Your task to perform on an android device: find photos in the google photos app Image 0: 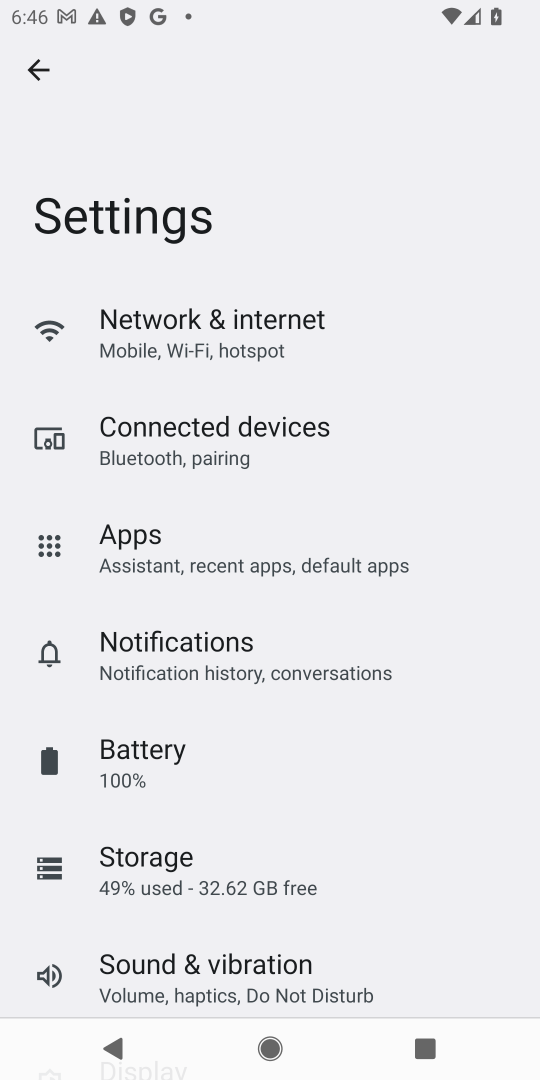
Step 0: press home button
Your task to perform on an android device: find photos in the google photos app Image 1: 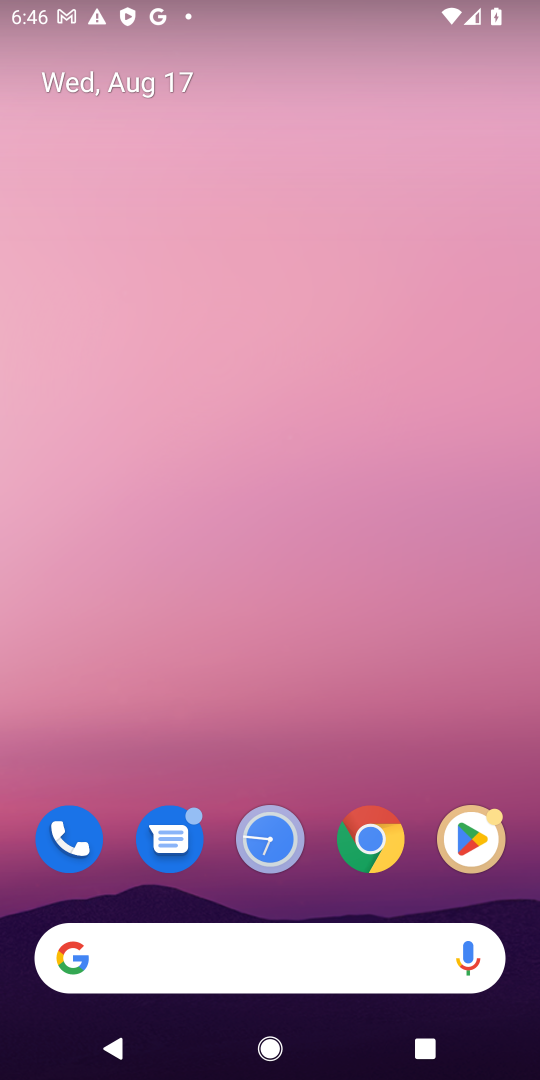
Step 1: drag from (326, 891) to (161, 0)
Your task to perform on an android device: find photos in the google photos app Image 2: 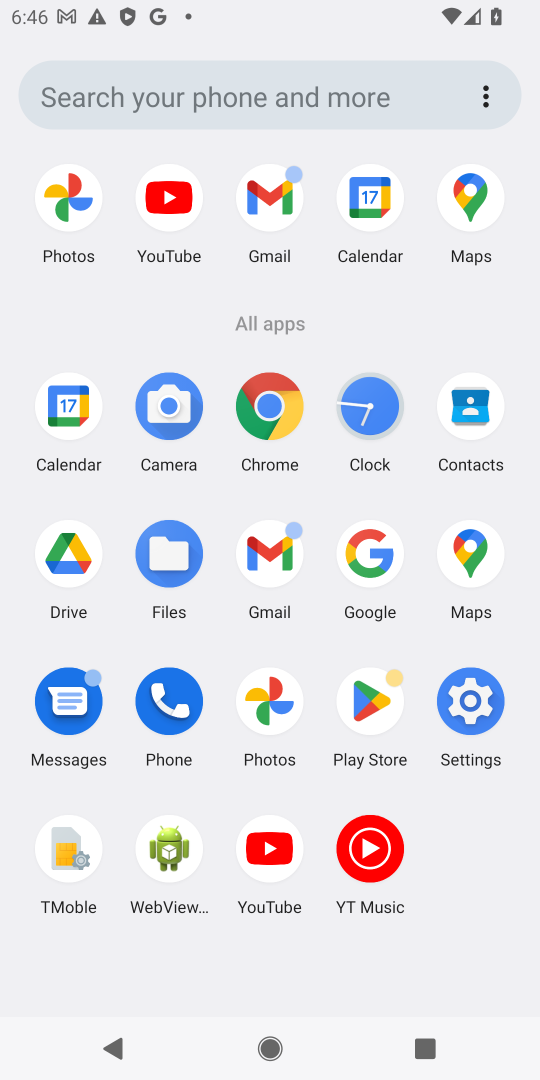
Step 2: click (267, 698)
Your task to perform on an android device: find photos in the google photos app Image 3: 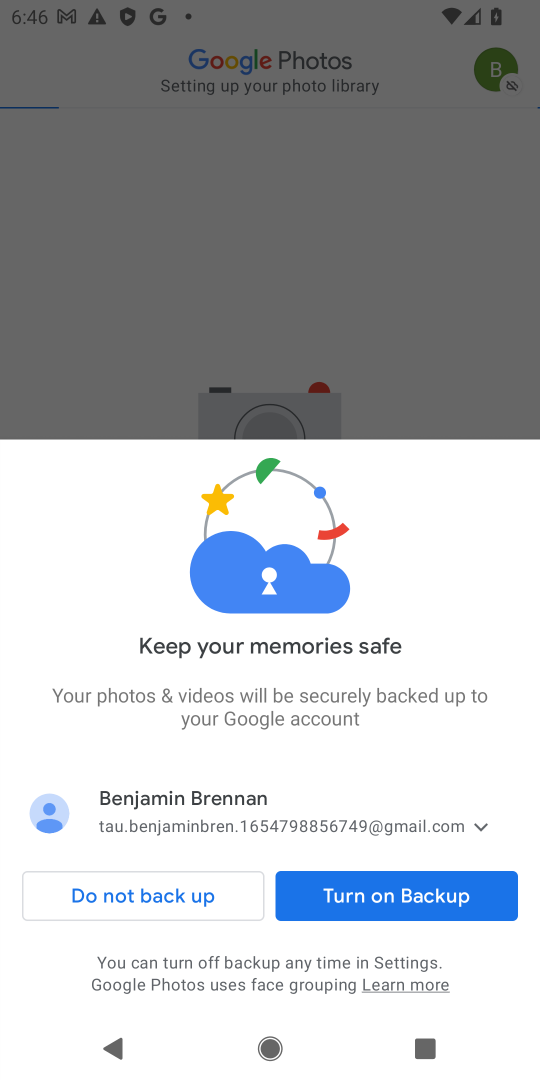
Step 3: click (391, 907)
Your task to perform on an android device: find photos in the google photos app Image 4: 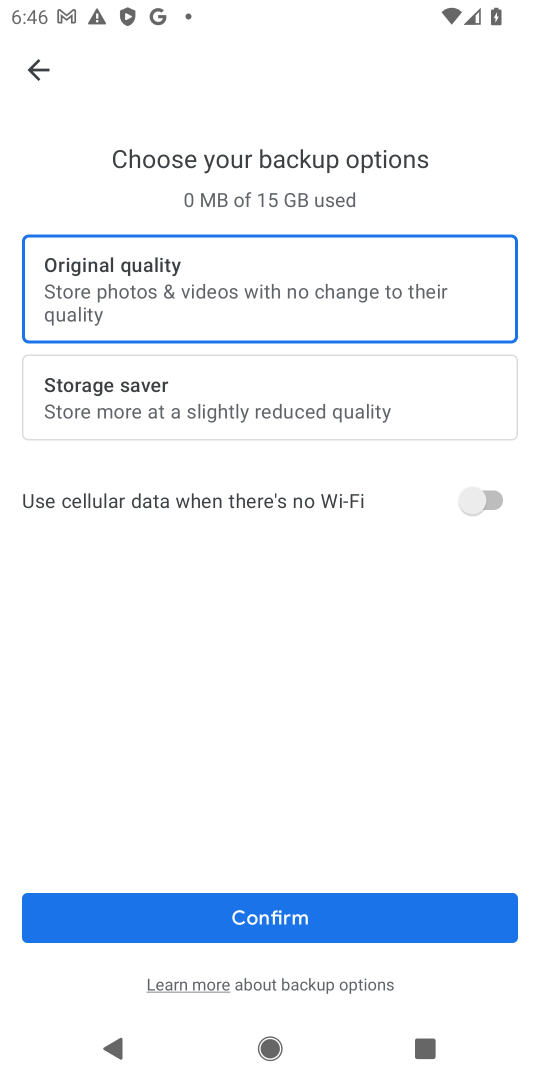
Step 4: click (391, 907)
Your task to perform on an android device: find photos in the google photos app Image 5: 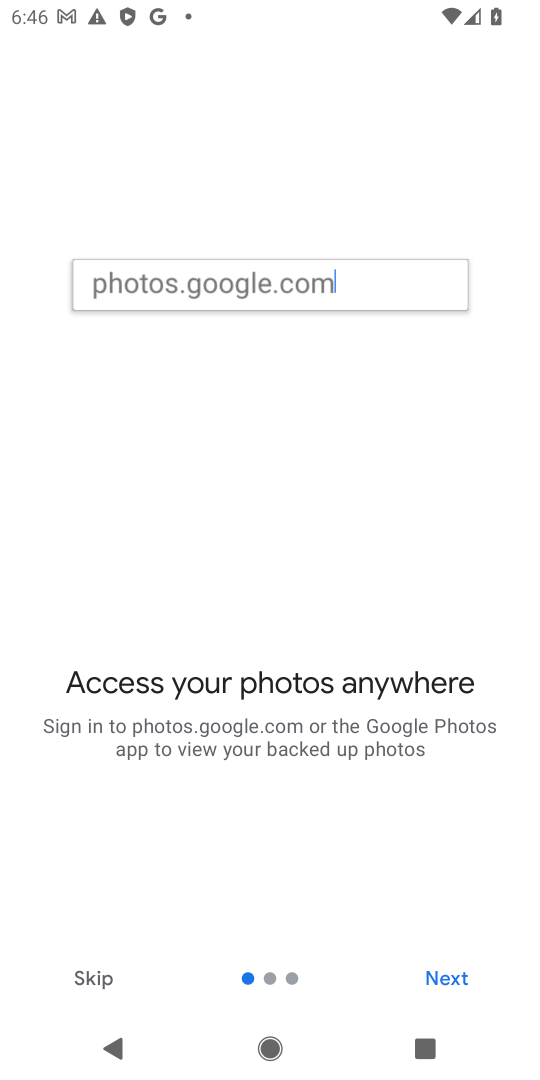
Step 5: click (100, 965)
Your task to perform on an android device: find photos in the google photos app Image 6: 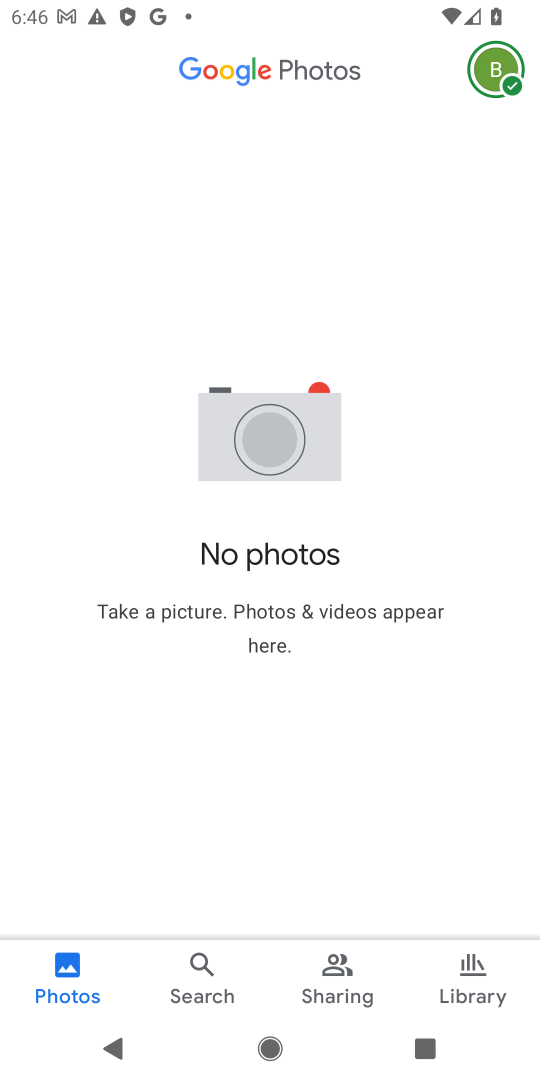
Step 6: click (190, 970)
Your task to perform on an android device: find photos in the google photos app Image 7: 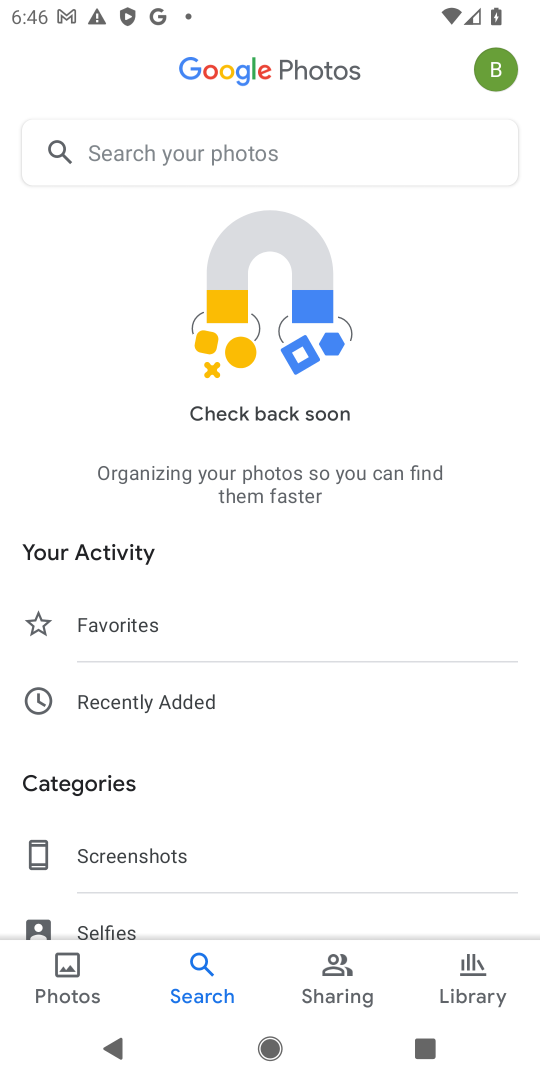
Step 7: click (73, 969)
Your task to perform on an android device: find photos in the google photos app Image 8: 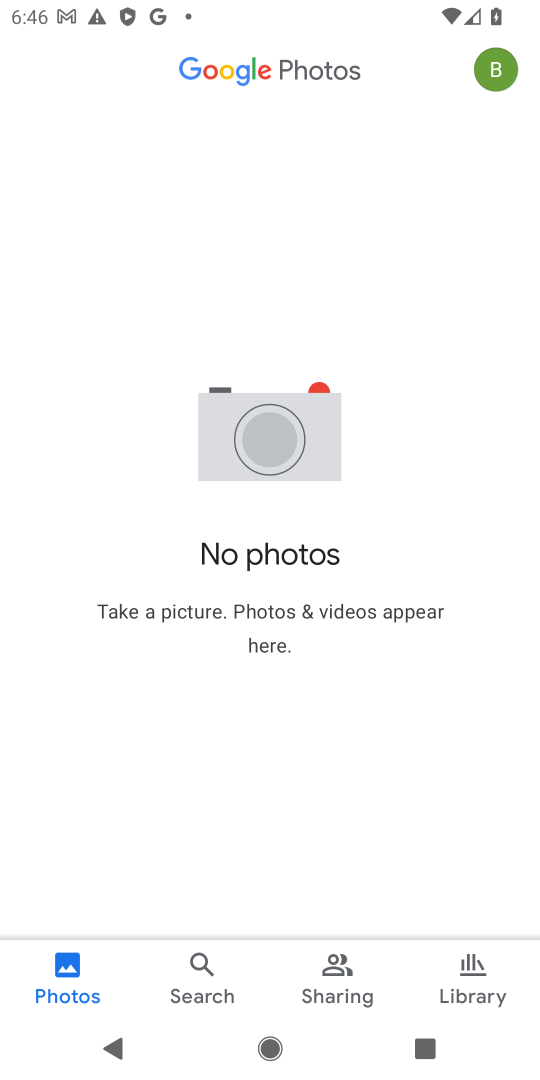
Step 8: task complete